Your task to perform on an android device: Is it going to rain today? Image 0: 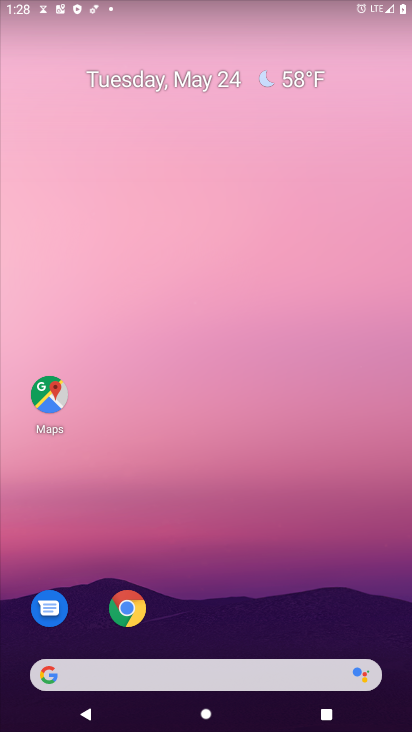
Step 0: press home button
Your task to perform on an android device: Is it going to rain today? Image 1: 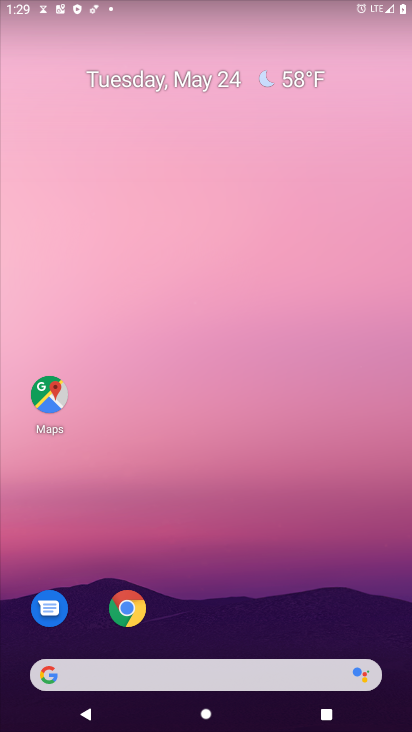
Step 1: click (206, 674)
Your task to perform on an android device: Is it going to rain today? Image 2: 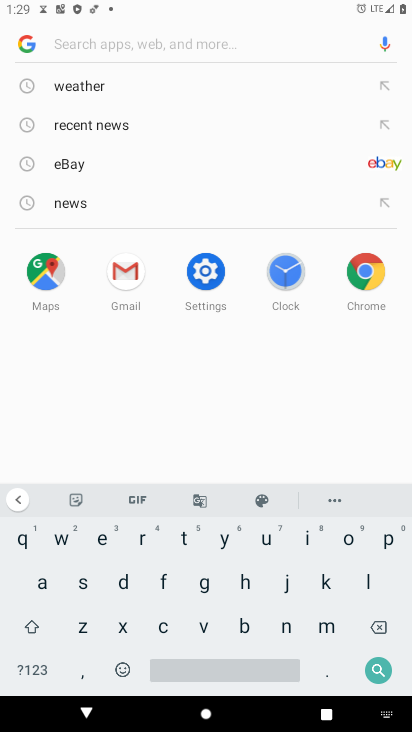
Step 2: click (103, 85)
Your task to perform on an android device: Is it going to rain today? Image 3: 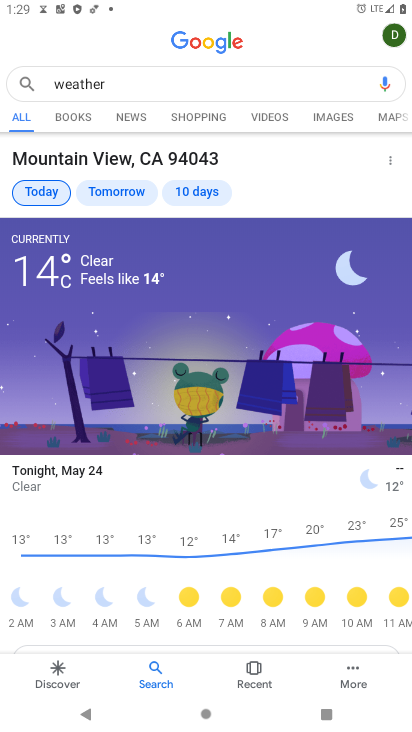
Step 3: task complete